Your task to perform on an android device: turn on improve location accuracy Image 0: 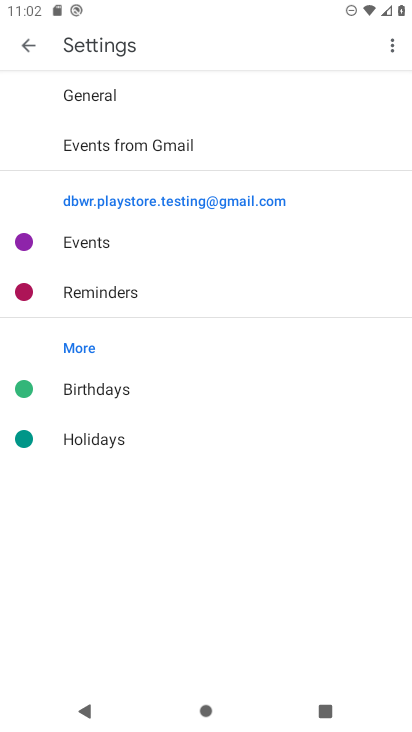
Step 0: press home button
Your task to perform on an android device: turn on improve location accuracy Image 1: 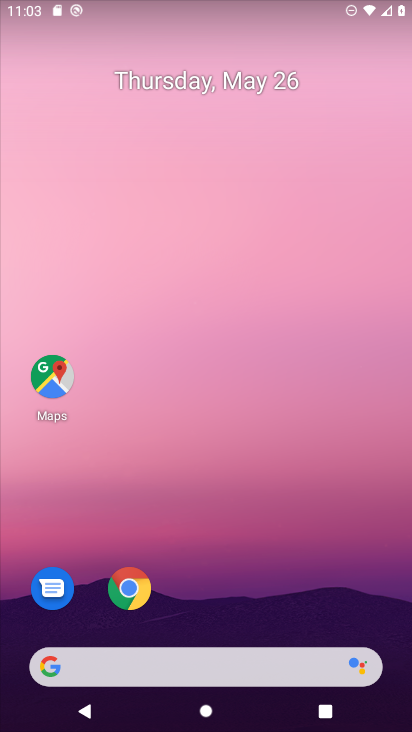
Step 1: drag from (327, 613) to (272, 87)
Your task to perform on an android device: turn on improve location accuracy Image 2: 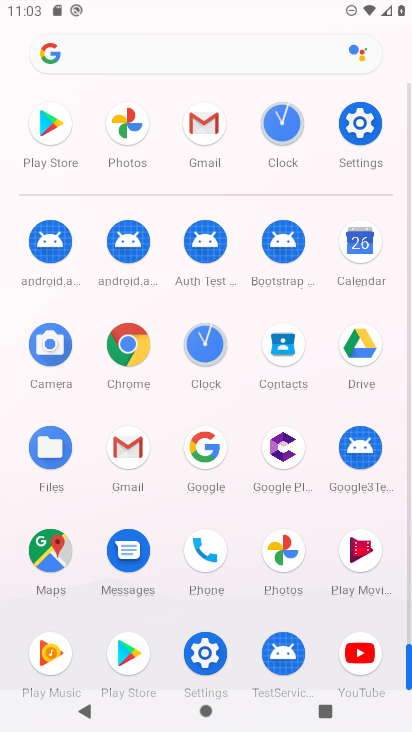
Step 2: click (206, 654)
Your task to perform on an android device: turn on improve location accuracy Image 3: 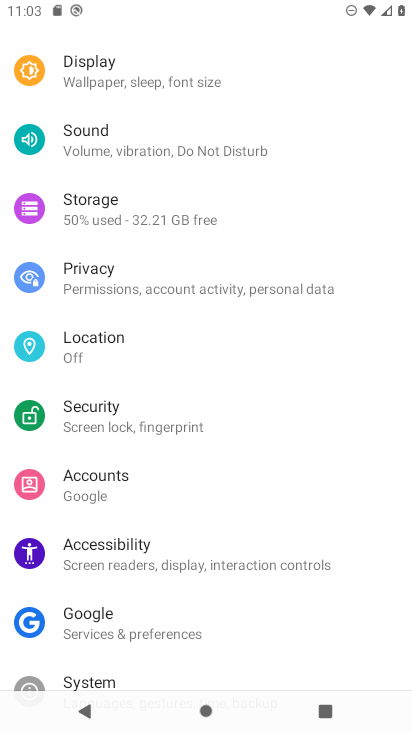
Step 3: click (120, 329)
Your task to perform on an android device: turn on improve location accuracy Image 4: 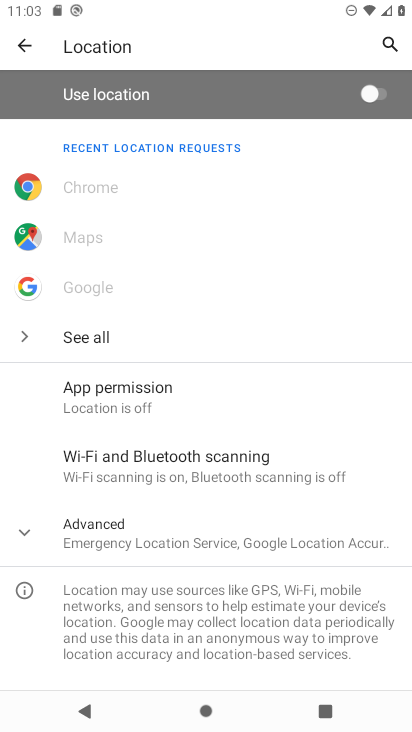
Step 4: click (23, 528)
Your task to perform on an android device: turn on improve location accuracy Image 5: 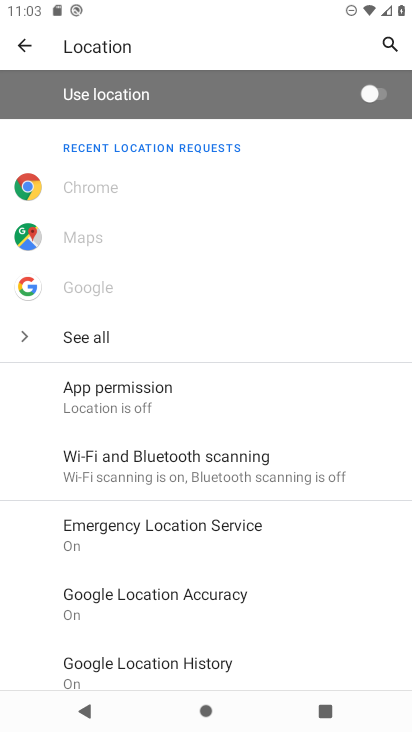
Step 5: click (123, 594)
Your task to perform on an android device: turn on improve location accuracy Image 6: 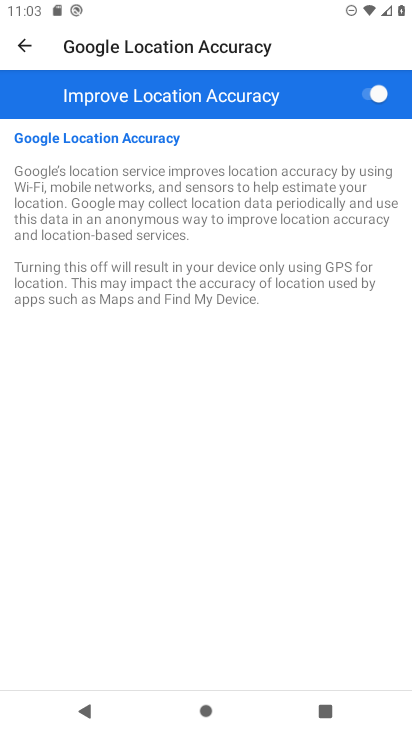
Step 6: task complete